Your task to perform on an android device: open chrome privacy settings Image 0: 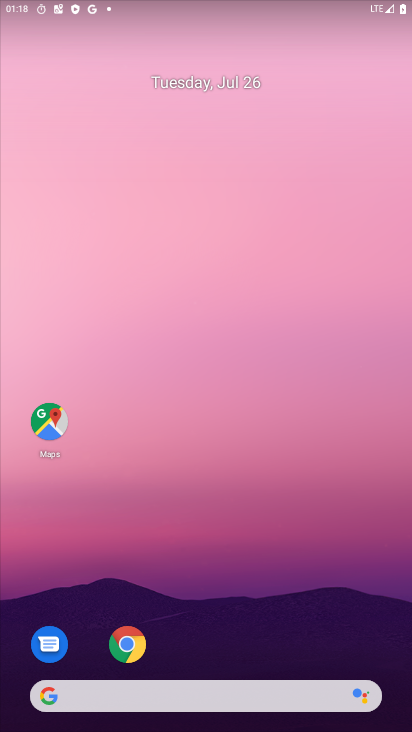
Step 0: click (131, 652)
Your task to perform on an android device: open chrome privacy settings Image 1: 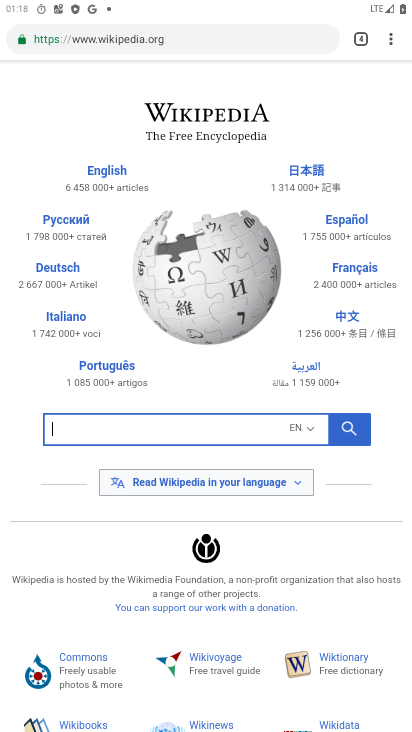
Step 1: drag from (392, 41) to (251, 476)
Your task to perform on an android device: open chrome privacy settings Image 2: 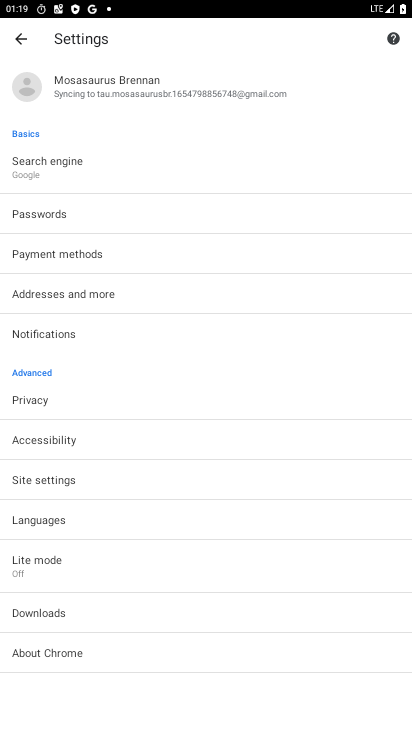
Step 2: click (48, 398)
Your task to perform on an android device: open chrome privacy settings Image 3: 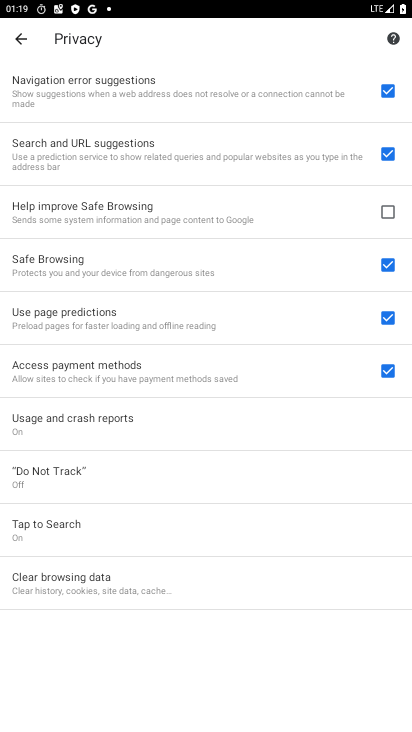
Step 3: task complete